Your task to perform on an android device: change the clock display to digital Image 0: 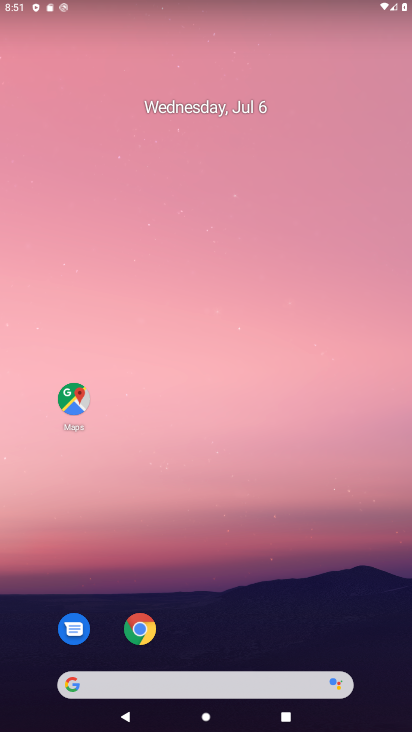
Step 0: click (154, 207)
Your task to perform on an android device: change the clock display to digital Image 1: 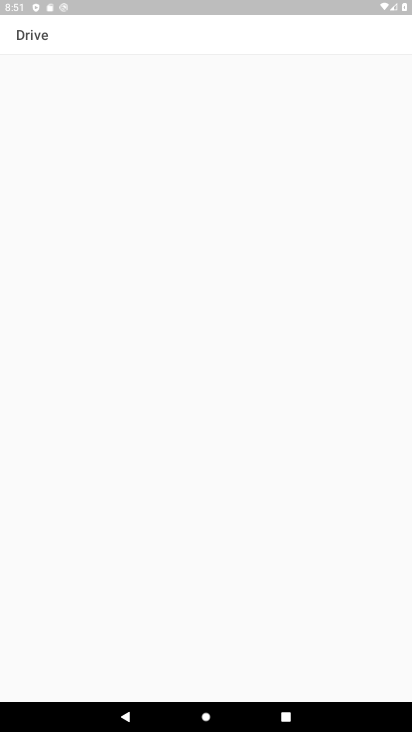
Step 1: press home button
Your task to perform on an android device: change the clock display to digital Image 2: 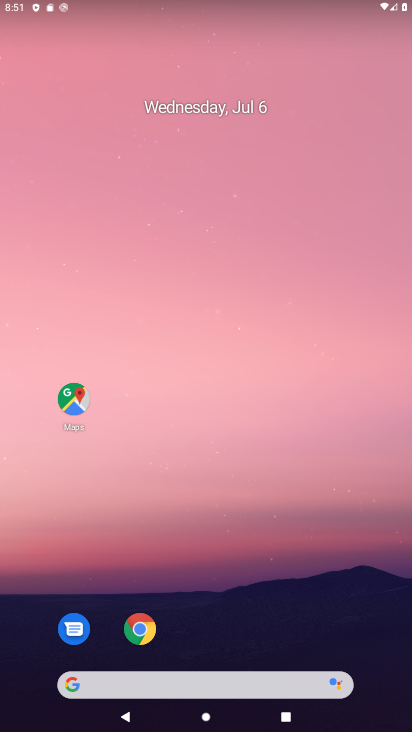
Step 2: drag from (246, 659) to (249, 132)
Your task to perform on an android device: change the clock display to digital Image 3: 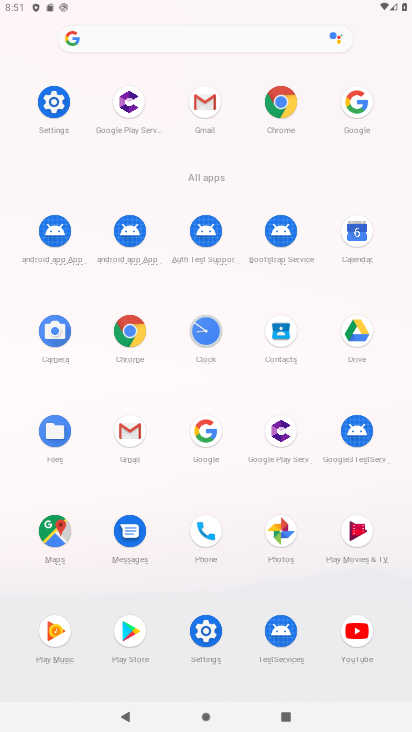
Step 3: click (199, 325)
Your task to perform on an android device: change the clock display to digital Image 4: 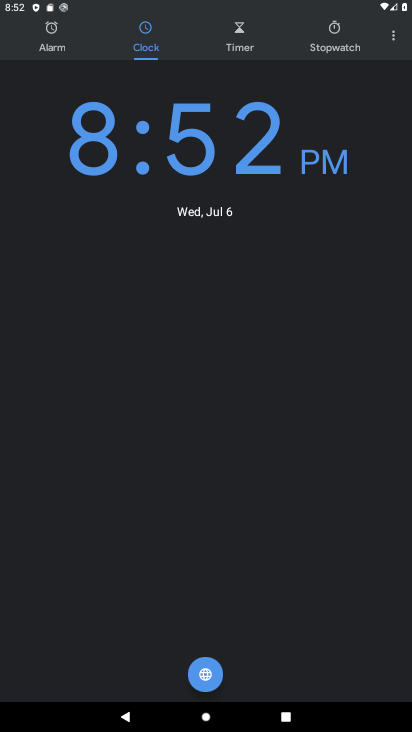
Step 4: click (388, 37)
Your task to perform on an android device: change the clock display to digital Image 5: 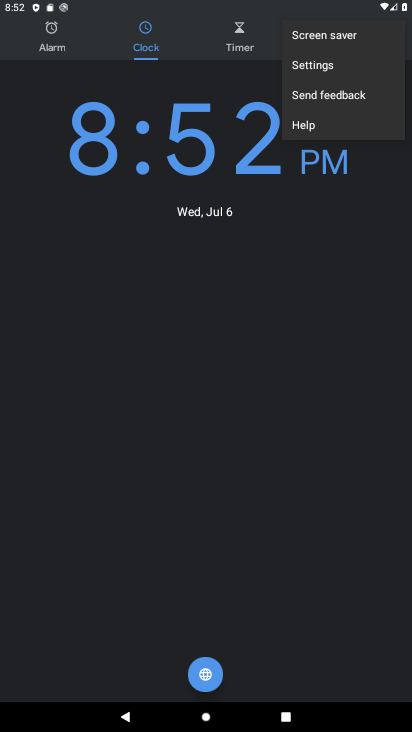
Step 5: click (330, 75)
Your task to perform on an android device: change the clock display to digital Image 6: 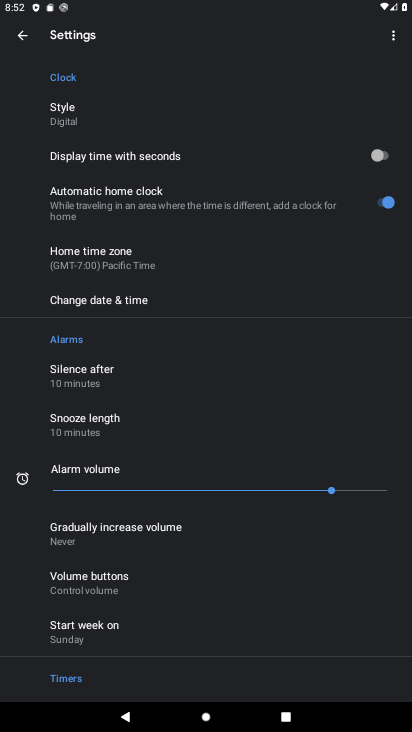
Step 6: task complete